Your task to perform on an android device: Go to Amazon Image 0: 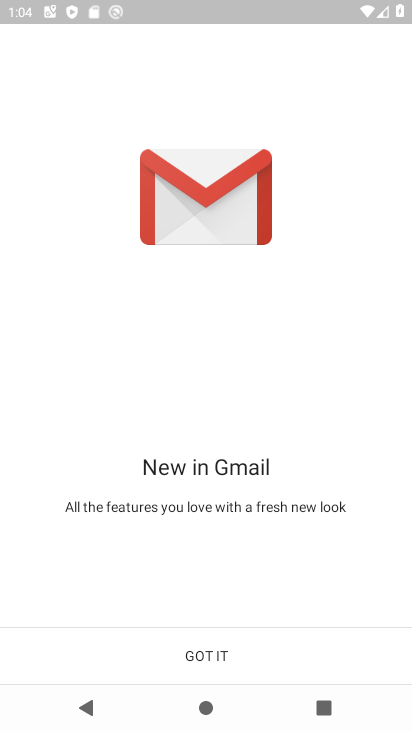
Step 0: press home button
Your task to perform on an android device: Go to Amazon Image 1: 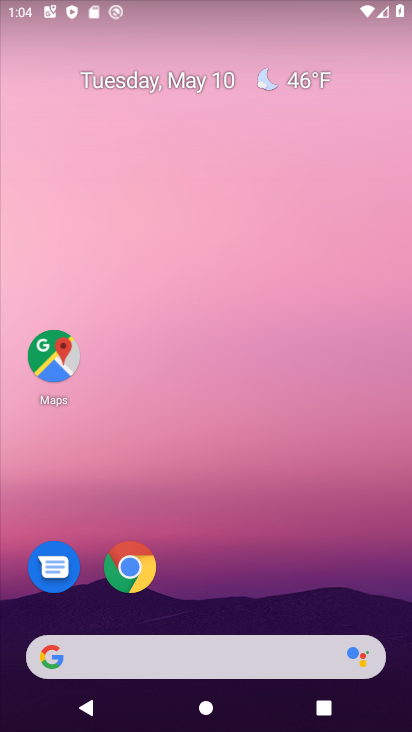
Step 1: click (137, 573)
Your task to perform on an android device: Go to Amazon Image 2: 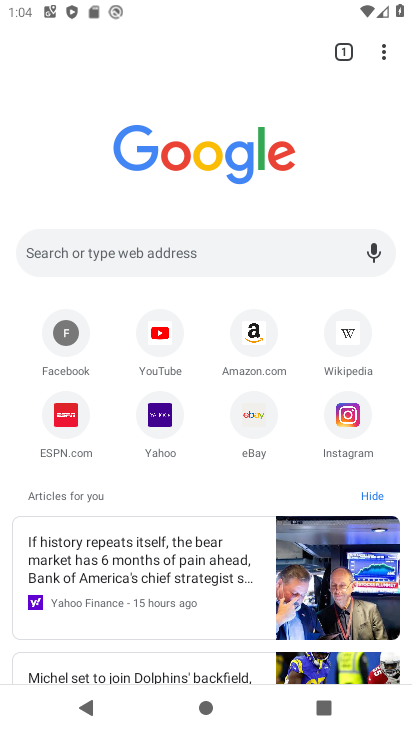
Step 2: click (106, 251)
Your task to perform on an android device: Go to Amazon Image 3: 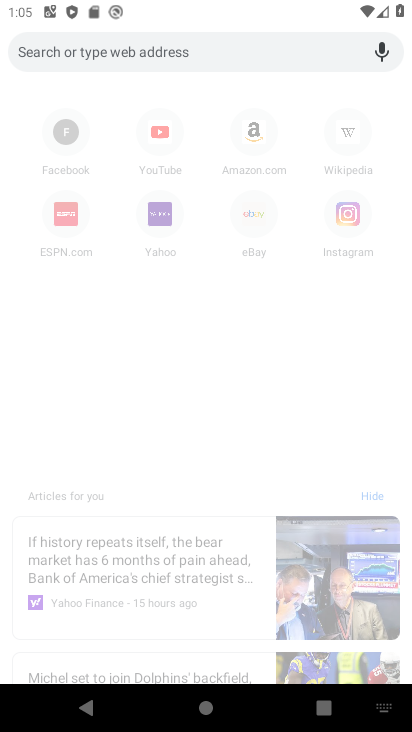
Step 3: type "amazon"
Your task to perform on an android device: Go to Amazon Image 4: 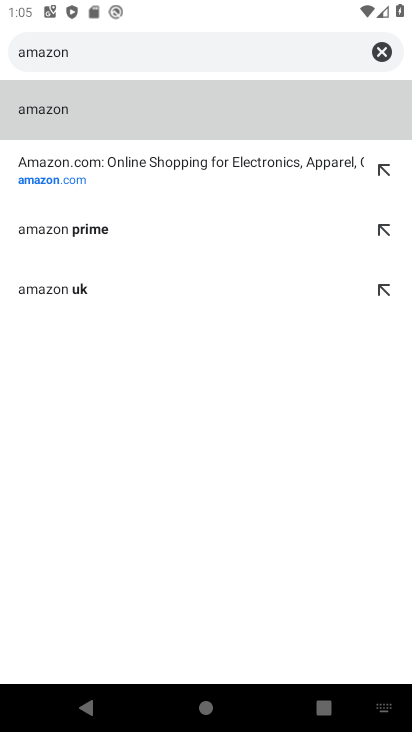
Step 4: click (82, 162)
Your task to perform on an android device: Go to Amazon Image 5: 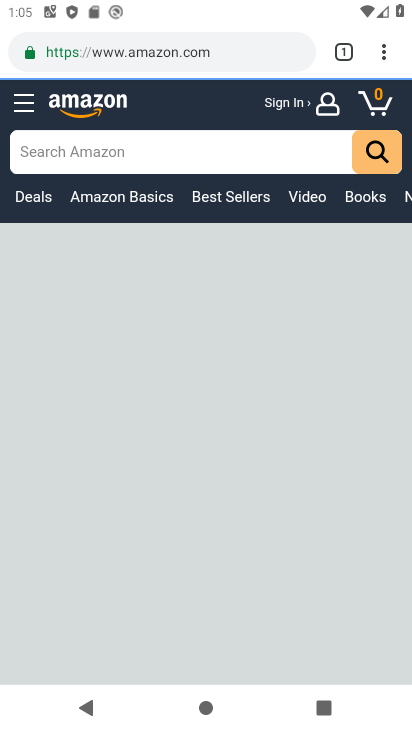
Step 5: task complete